Your task to perform on an android device: delete the emails in spam in the gmail app Image 0: 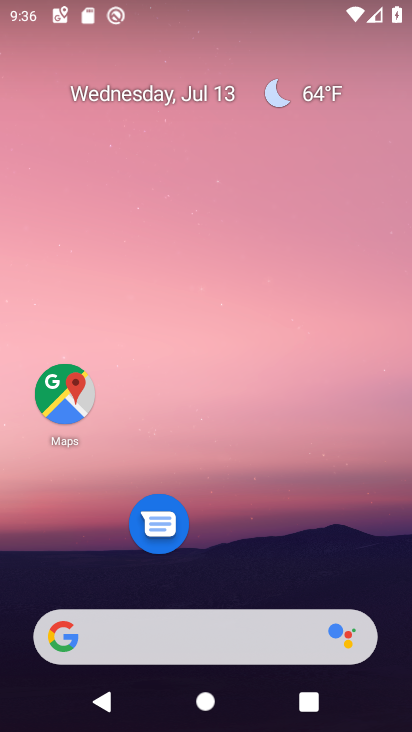
Step 0: drag from (251, 603) to (209, 39)
Your task to perform on an android device: delete the emails in spam in the gmail app Image 1: 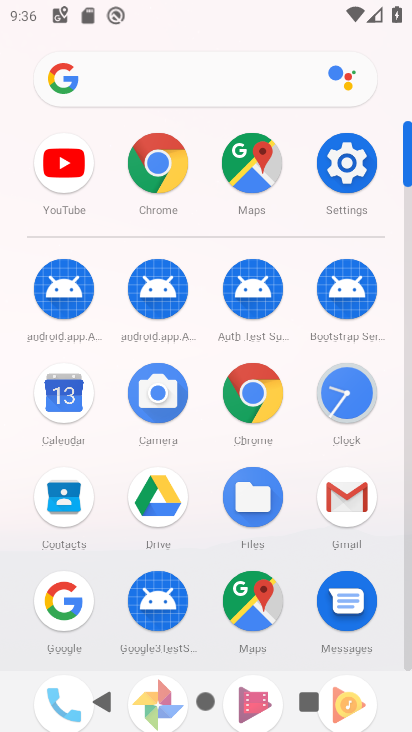
Step 1: click (353, 492)
Your task to perform on an android device: delete the emails in spam in the gmail app Image 2: 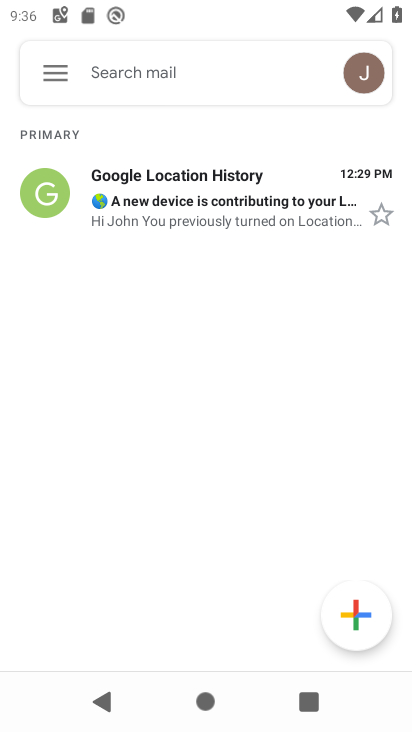
Step 2: click (56, 63)
Your task to perform on an android device: delete the emails in spam in the gmail app Image 3: 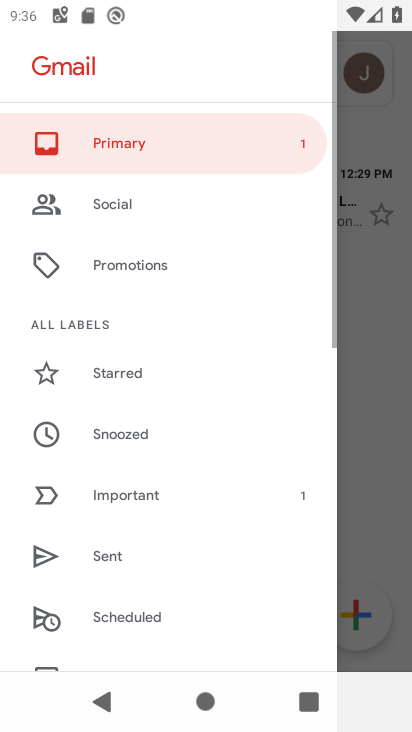
Step 3: drag from (117, 517) to (112, 184)
Your task to perform on an android device: delete the emails in spam in the gmail app Image 4: 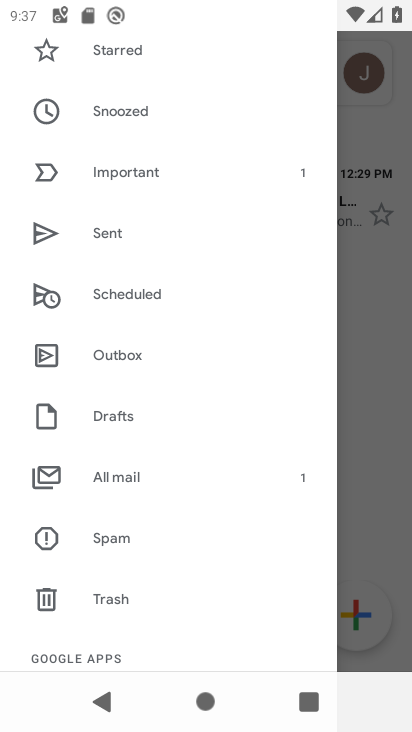
Step 4: click (139, 537)
Your task to perform on an android device: delete the emails in spam in the gmail app Image 5: 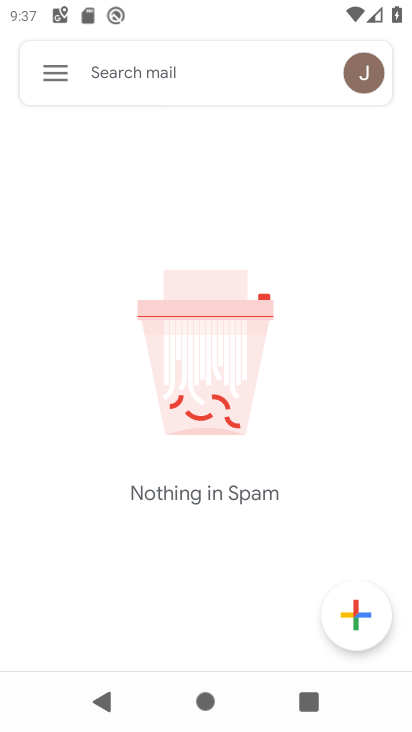
Step 5: task complete